Your task to perform on an android device: toggle priority inbox in the gmail app Image 0: 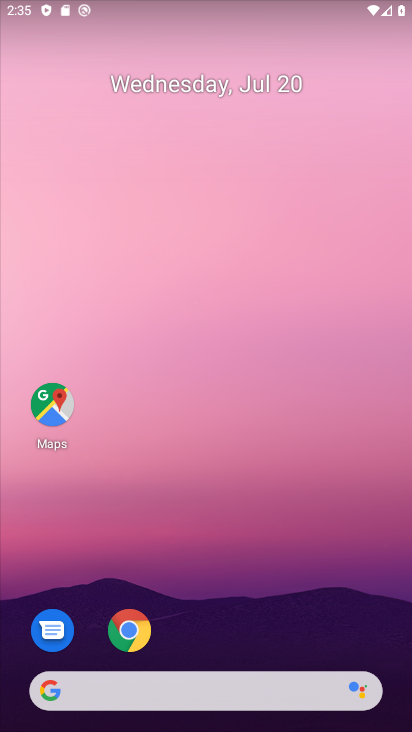
Step 0: drag from (207, 655) to (251, 135)
Your task to perform on an android device: toggle priority inbox in the gmail app Image 1: 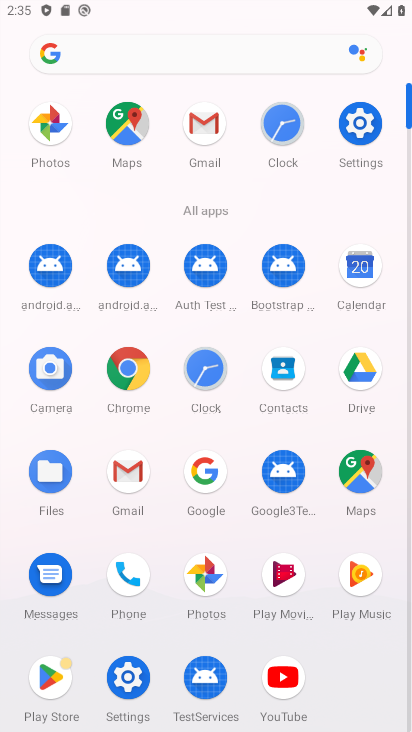
Step 1: click (124, 471)
Your task to perform on an android device: toggle priority inbox in the gmail app Image 2: 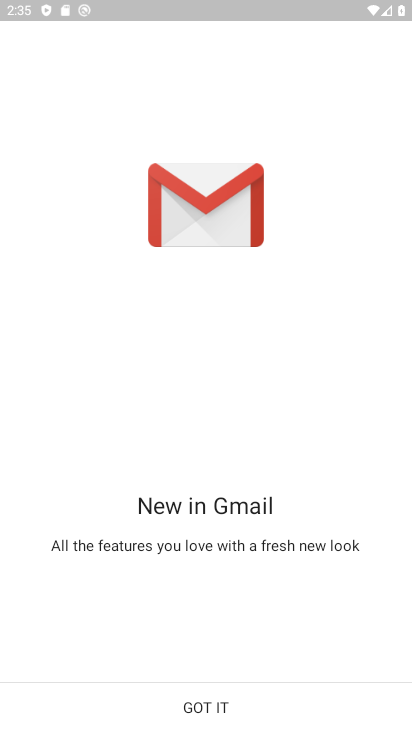
Step 2: click (240, 710)
Your task to perform on an android device: toggle priority inbox in the gmail app Image 3: 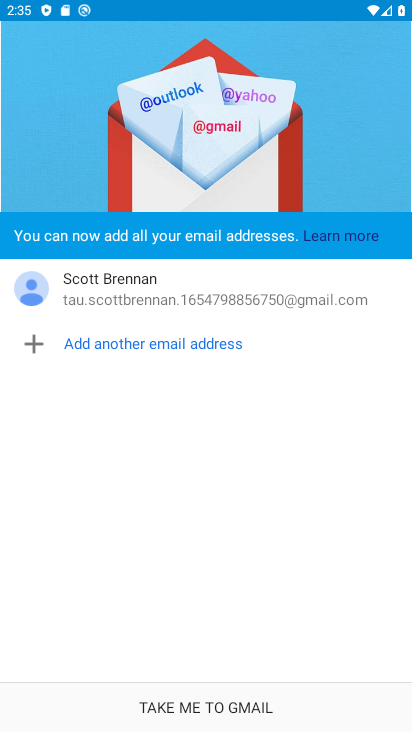
Step 3: click (247, 712)
Your task to perform on an android device: toggle priority inbox in the gmail app Image 4: 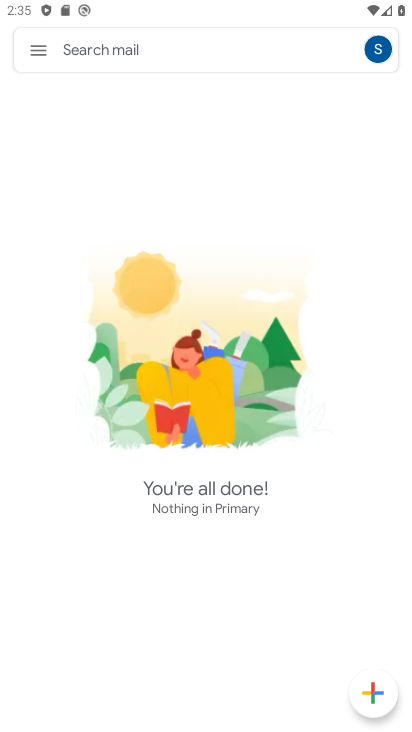
Step 4: click (44, 54)
Your task to perform on an android device: toggle priority inbox in the gmail app Image 5: 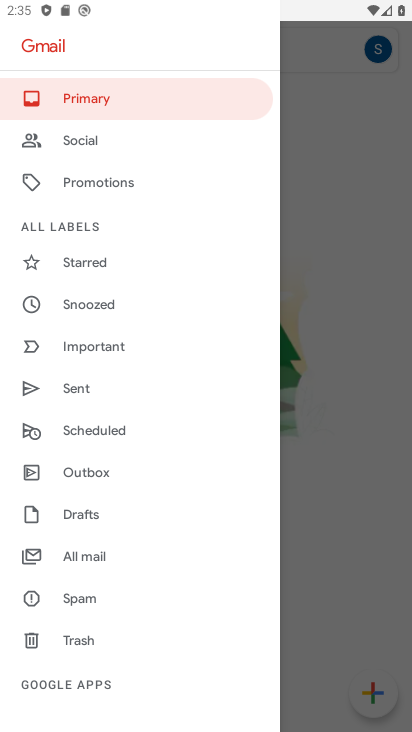
Step 5: drag from (147, 648) to (192, 311)
Your task to perform on an android device: toggle priority inbox in the gmail app Image 6: 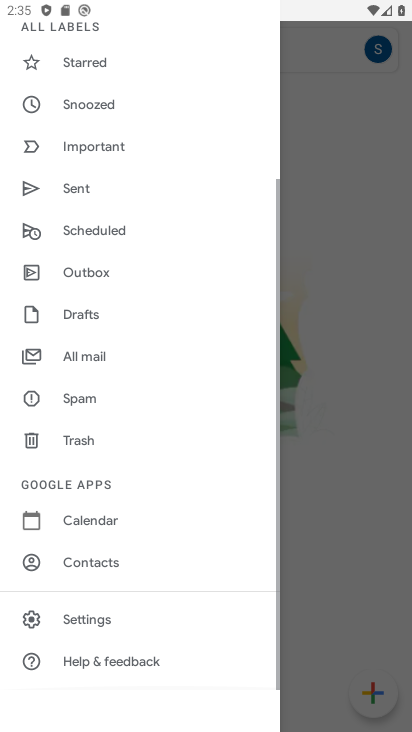
Step 6: click (156, 616)
Your task to perform on an android device: toggle priority inbox in the gmail app Image 7: 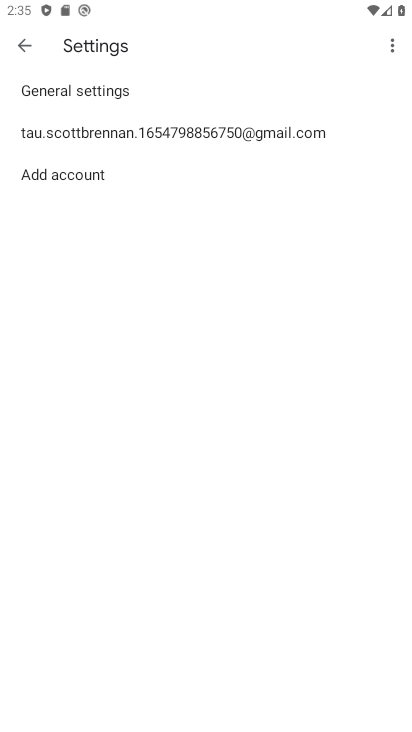
Step 7: click (151, 134)
Your task to perform on an android device: toggle priority inbox in the gmail app Image 8: 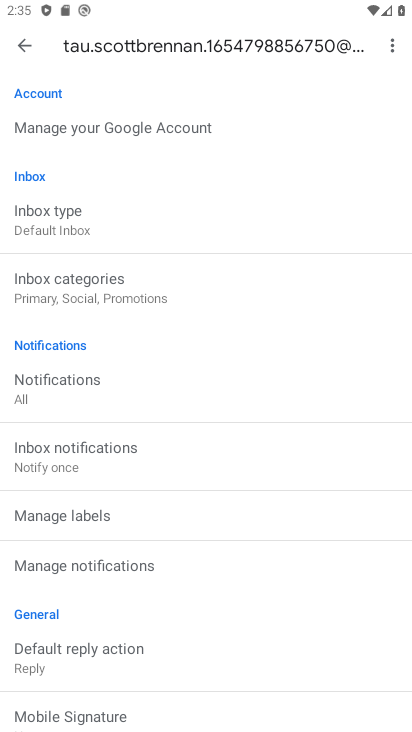
Step 8: click (154, 224)
Your task to perform on an android device: toggle priority inbox in the gmail app Image 9: 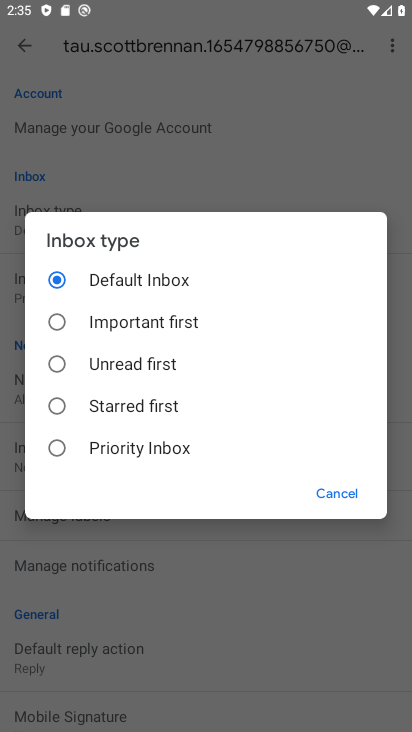
Step 9: click (58, 445)
Your task to perform on an android device: toggle priority inbox in the gmail app Image 10: 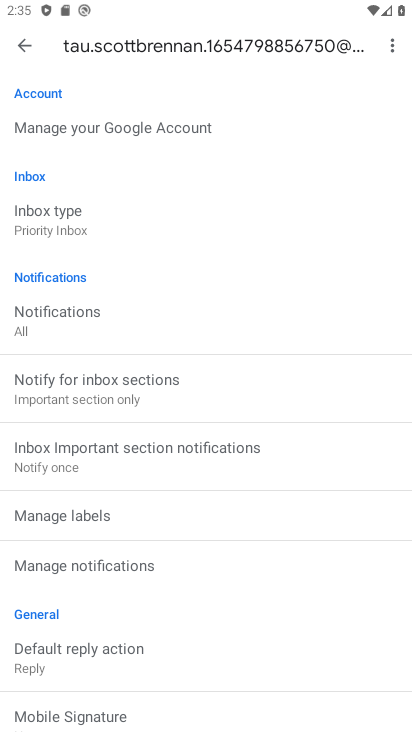
Step 10: task complete